Your task to perform on an android device: Do I have any events this weekend? Image 0: 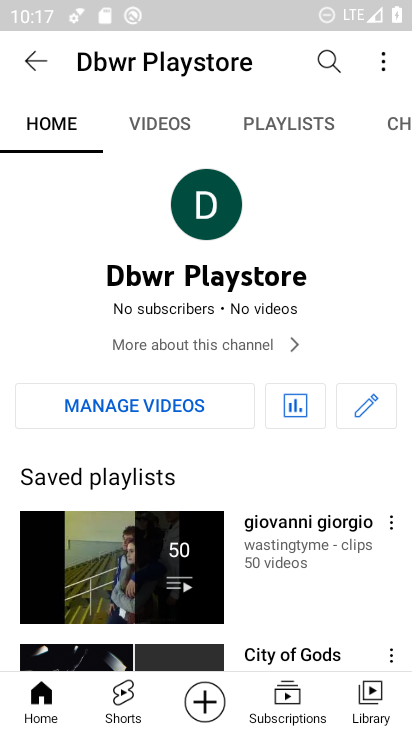
Step 0: press home button
Your task to perform on an android device: Do I have any events this weekend? Image 1: 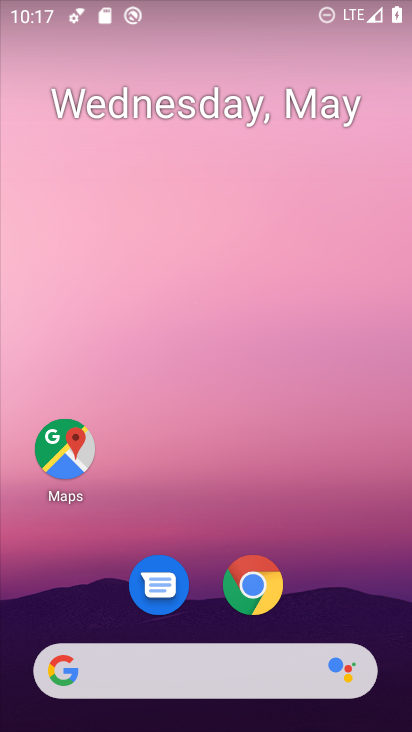
Step 1: drag from (248, 435) to (230, 43)
Your task to perform on an android device: Do I have any events this weekend? Image 2: 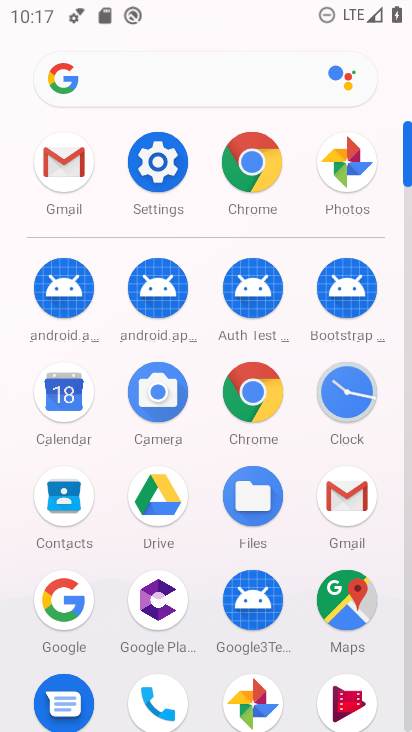
Step 2: click (70, 396)
Your task to perform on an android device: Do I have any events this weekend? Image 3: 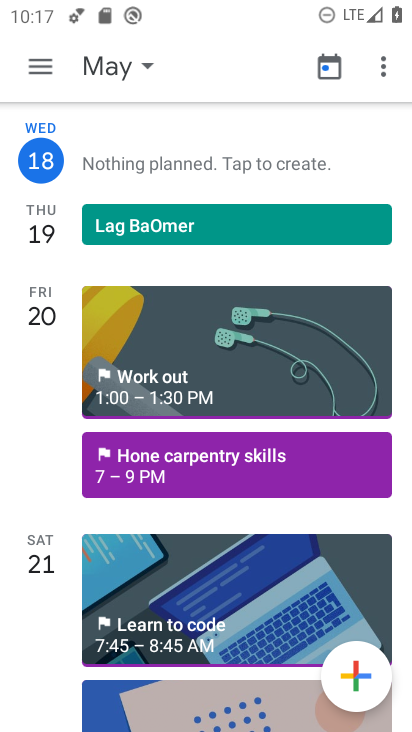
Step 3: task complete